Your task to perform on an android device: What is the news today? Image 0: 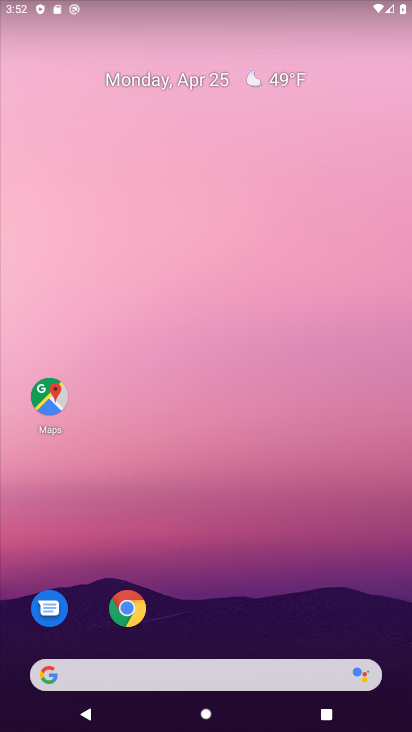
Step 0: click (215, 124)
Your task to perform on an android device: What is the news today? Image 1: 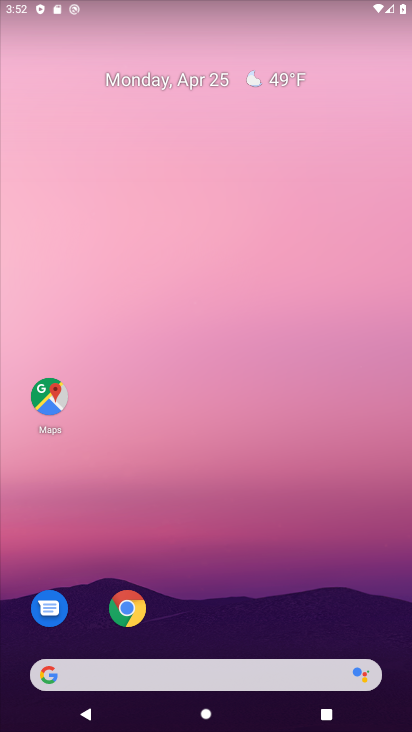
Step 1: drag from (203, 532) to (214, 88)
Your task to perform on an android device: What is the news today? Image 2: 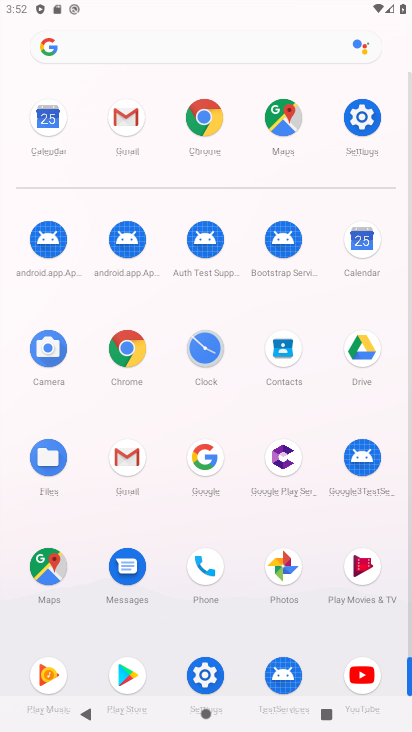
Step 2: click (215, 463)
Your task to perform on an android device: What is the news today? Image 3: 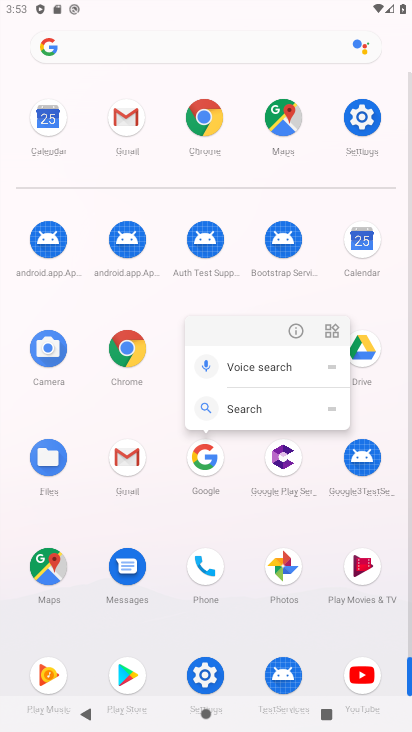
Step 3: click (206, 468)
Your task to perform on an android device: What is the news today? Image 4: 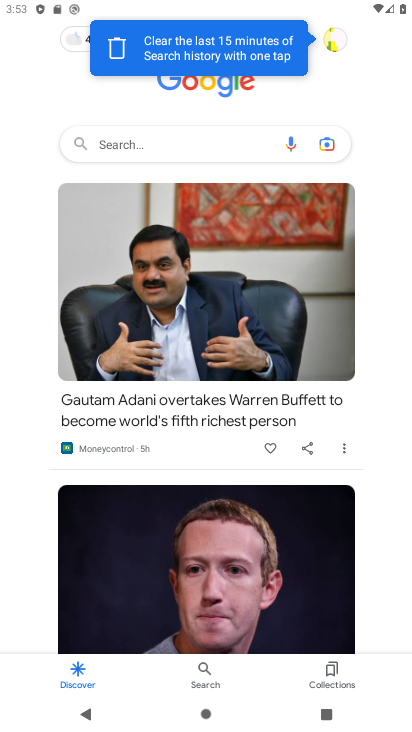
Step 4: click (165, 145)
Your task to perform on an android device: What is the news today? Image 5: 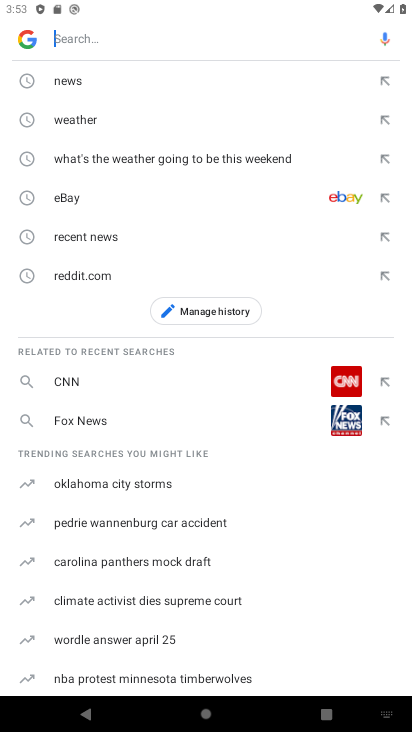
Step 5: click (161, 80)
Your task to perform on an android device: What is the news today? Image 6: 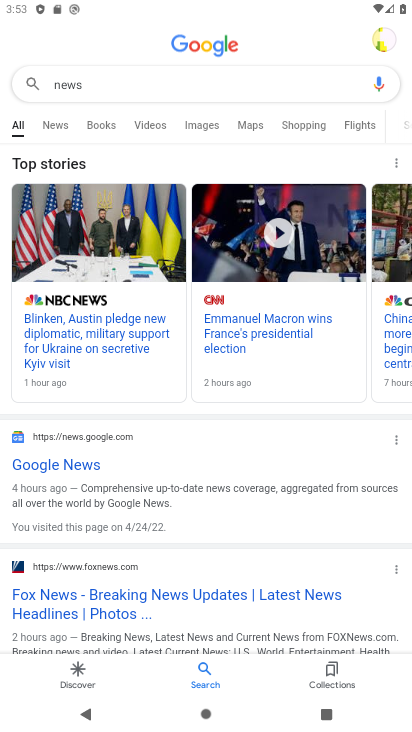
Step 6: click (57, 127)
Your task to perform on an android device: What is the news today? Image 7: 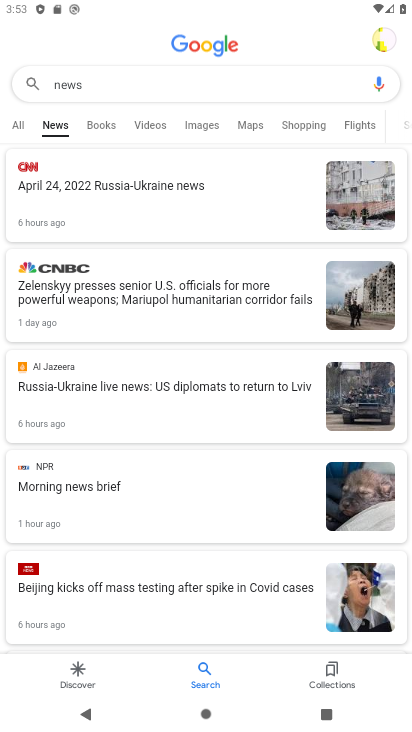
Step 7: task complete